Your task to perform on an android device: What is the recent news? Image 0: 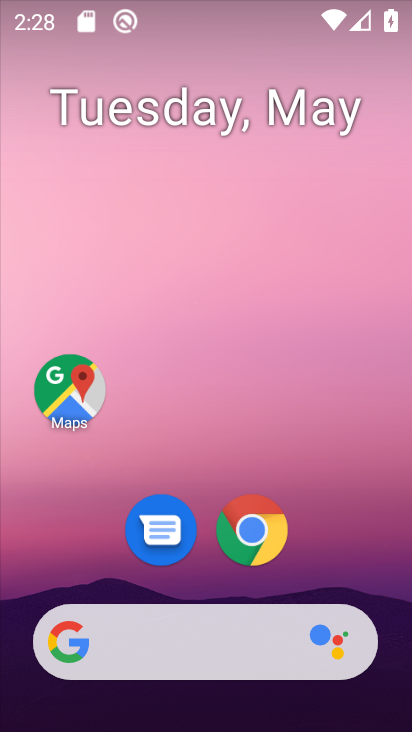
Step 0: drag from (9, 312) to (410, 451)
Your task to perform on an android device: What is the recent news? Image 1: 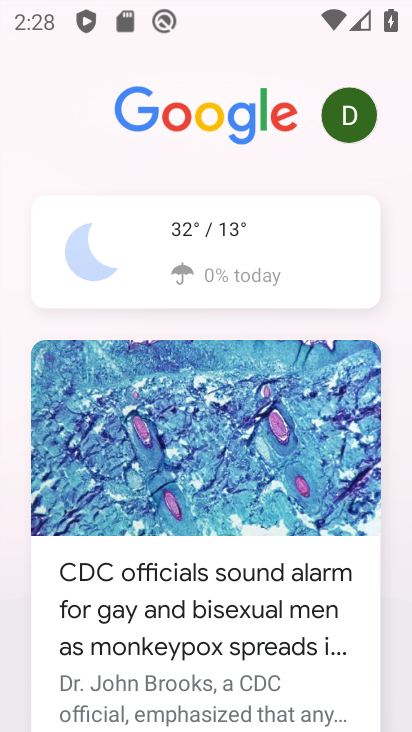
Step 1: task complete